Your task to perform on an android device: add a contact Image 0: 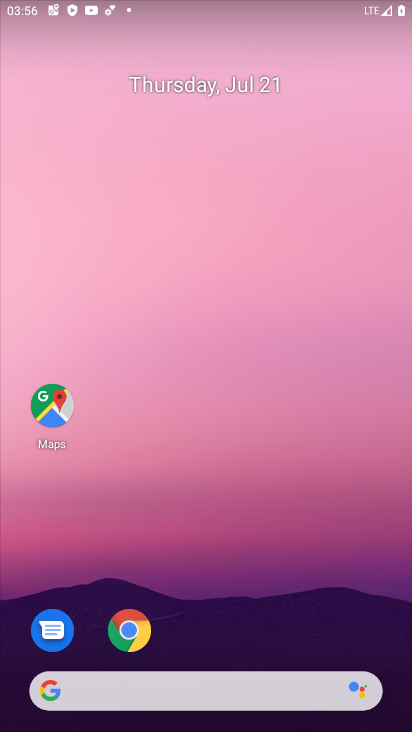
Step 0: drag from (194, 636) to (218, 38)
Your task to perform on an android device: add a contact Image 1: 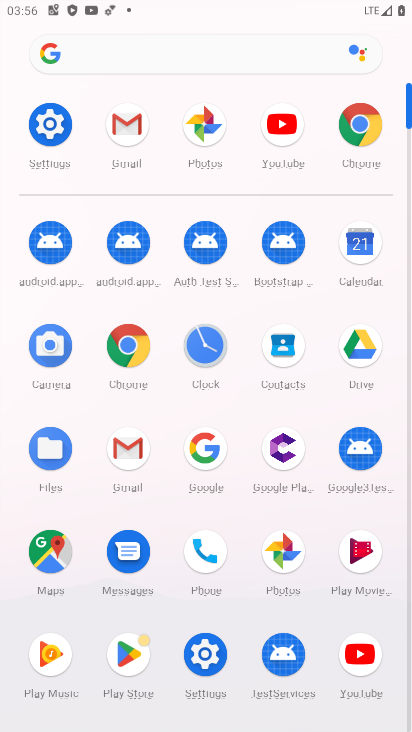
Step 1: click (289, 335)
Your task to perform on an android device: add a contact Image 2: 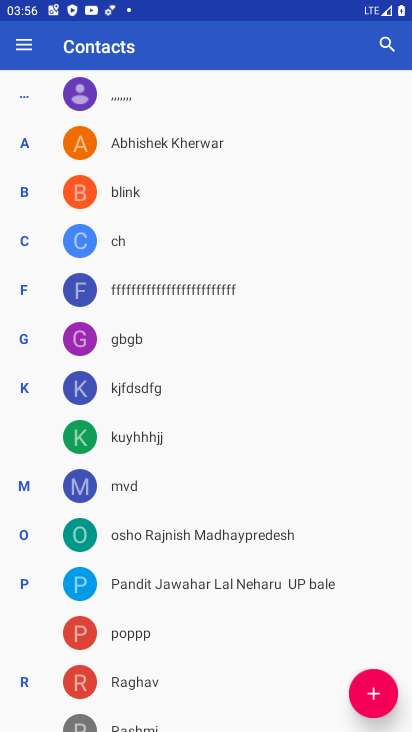
Step 2: click (351, 691)
Your task to perform on an android device: add a contact Image 3: 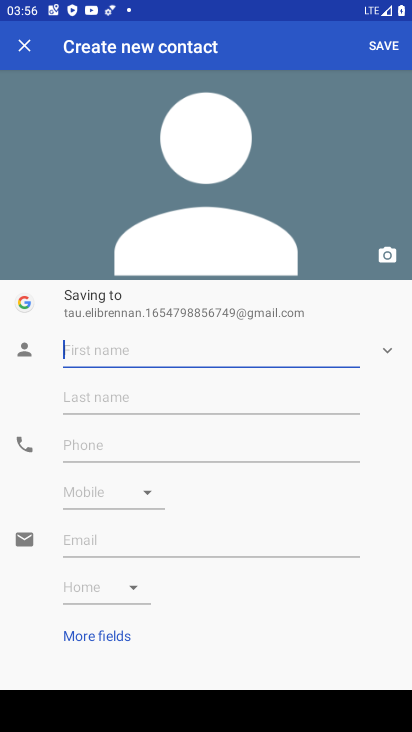
Step 3: type "pokijhbgvcx"
Your task to perform on an android device: add a contact Image 4: 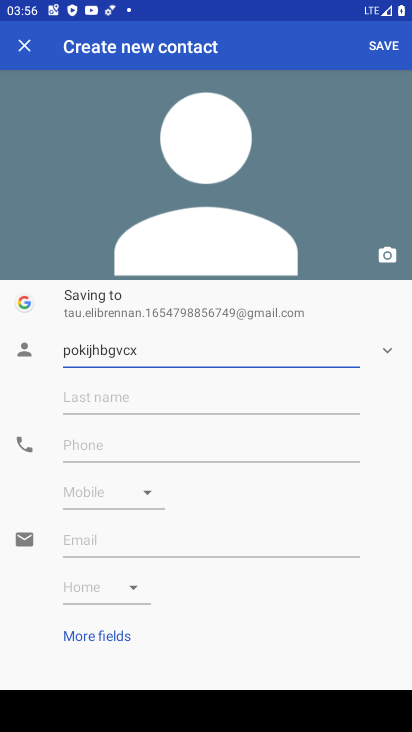
Step 4: click (140, 448)
Your task to perform on an android device: add a contact Image 5: 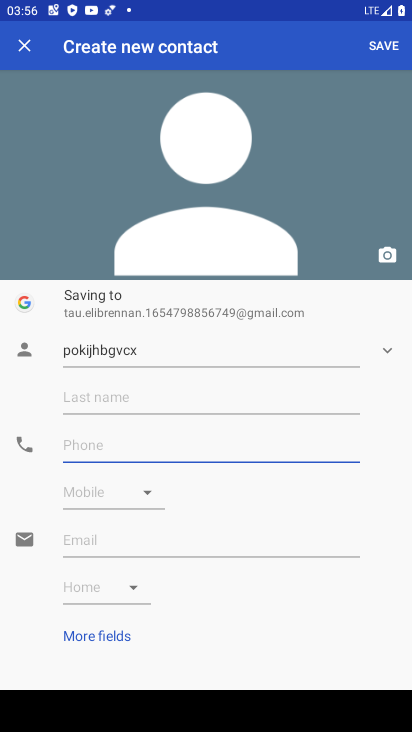
Step 5: type "987654345678"
Your task to perform on an android device: add a contact Image 6: 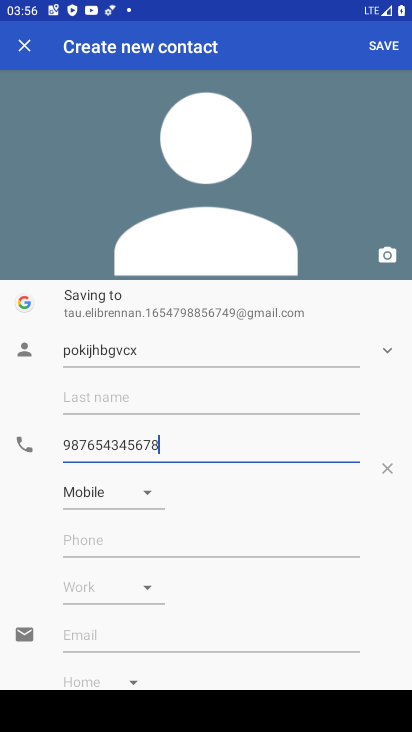
Step 6: type ""
Your task to perform on an android device: add a contact Image 7: 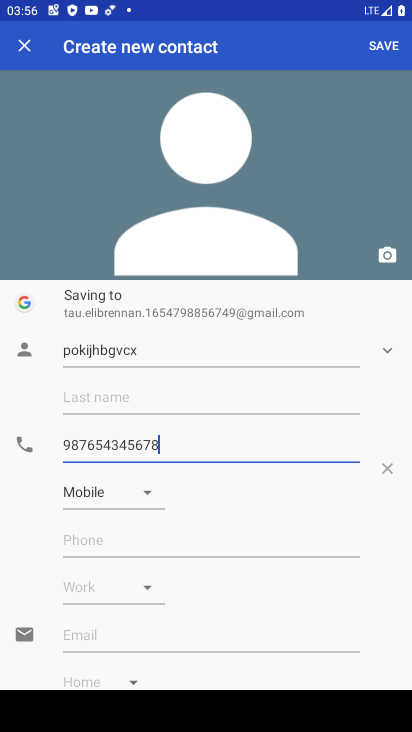
Step 7: click (385, 40)
Your task to perform on an android device: add a contact Image 8: 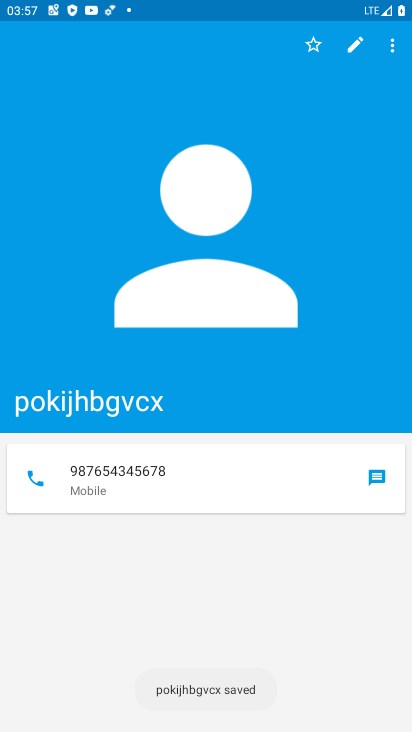
Step 8: task complete